Your task to perform on an android device: Open settings Image 0: 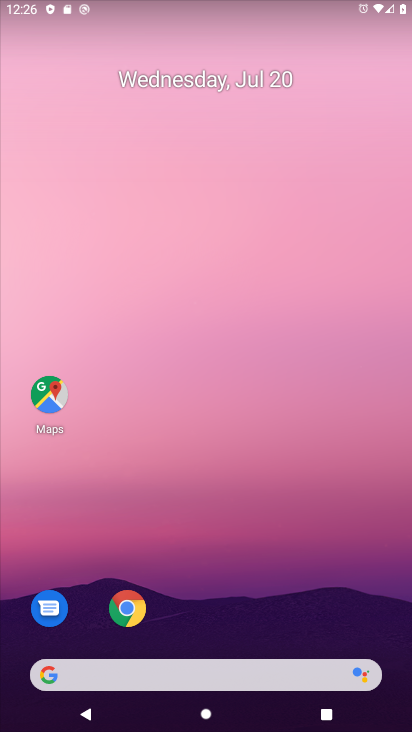
Step 0: drag from (209, 678) to (287, 75)
Your task to perform on an android device: Open settings Image 1: 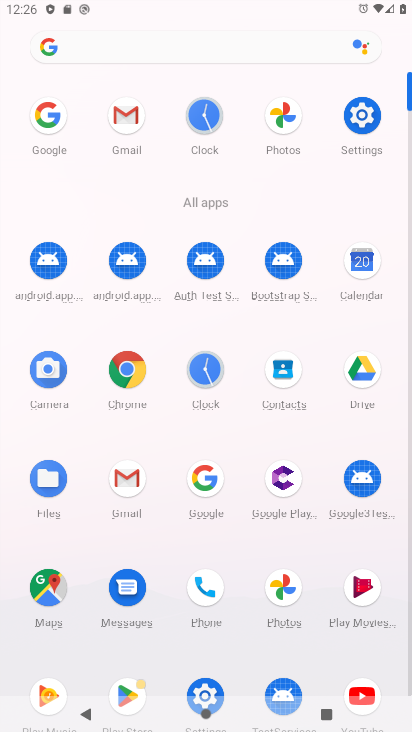
Step 1: click (365, 117)
Your task to perform on an android device: Open settings Image 2: 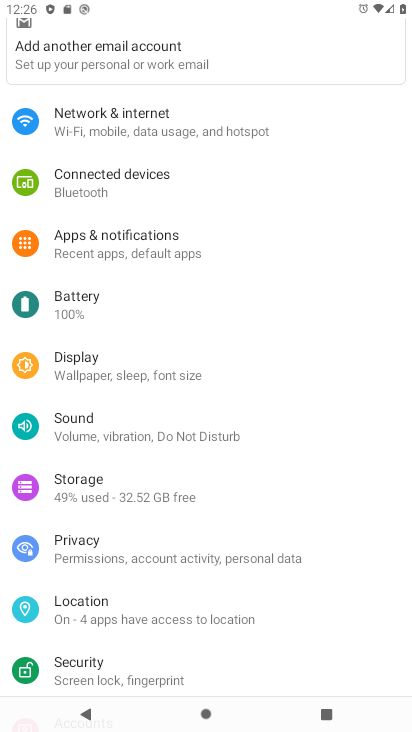
Step 2: task complete